Your task to perform on an android device: check out phone information Image 0: 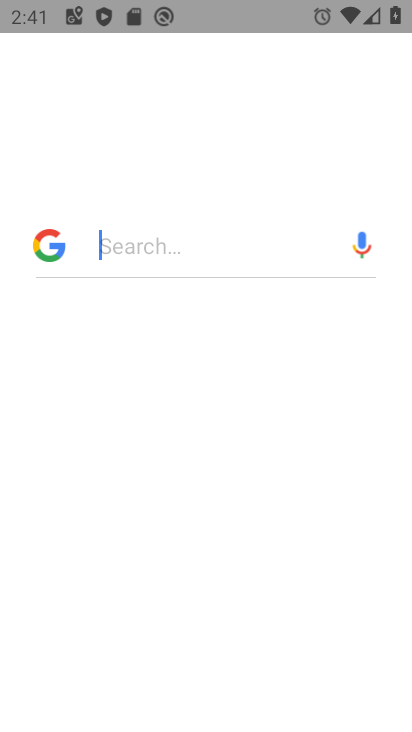
Step 0: drag from (334, 655) to (323, 8)
Your task to perform on an android device: check out phone information Image 1: 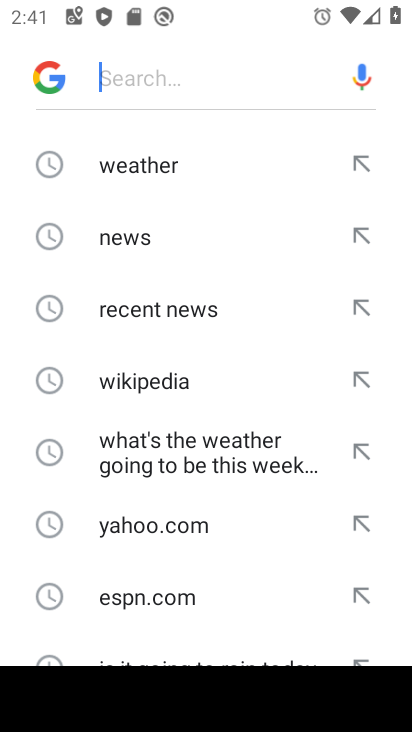
Step 1: press home button
Your task to perform on an android device: check out phone information Image 2: 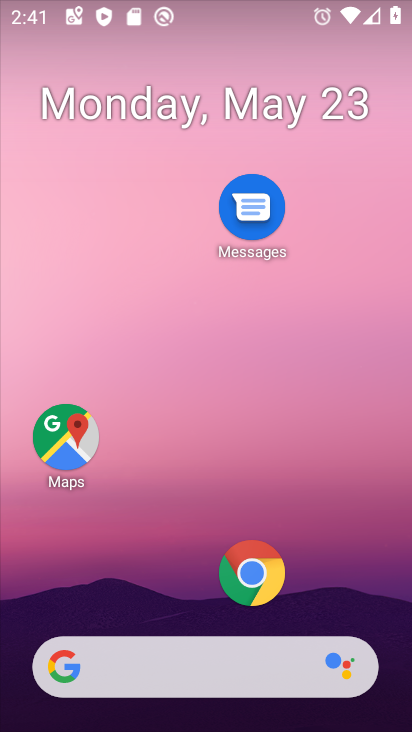
Step 2: drag from (245, 641) to (268, 193)
Your task to perform on an android device: check out phone information Image 3: 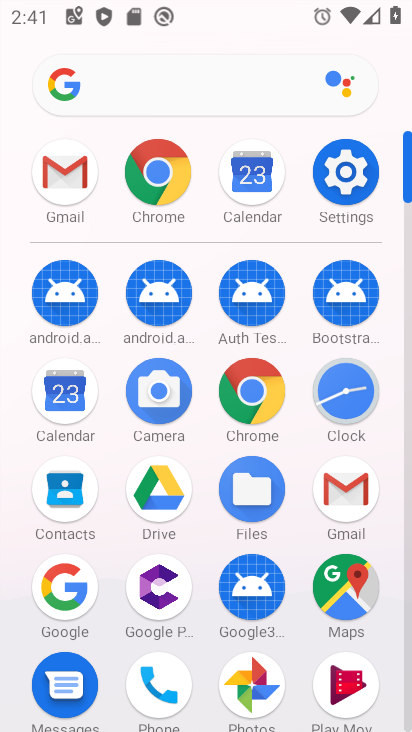
Step 3: click (347, 176)
Your task to perform on an android device: check out phone information Image 4: 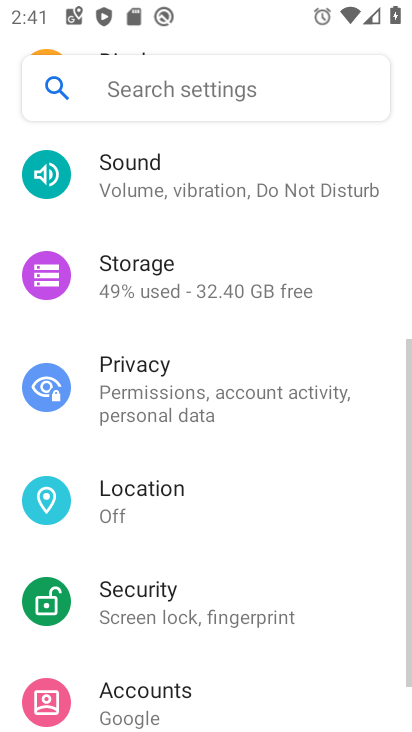
Step 4: drag from (290, 670) to (324, 51)
Your task to perform on an android device: check out phone information Image 5: 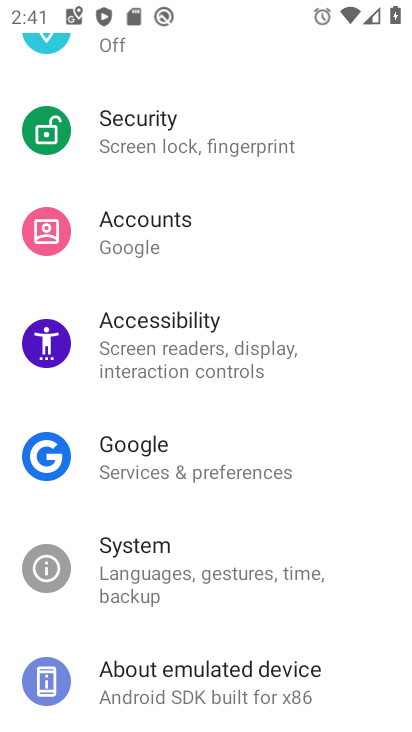
Step 5: click (244, 702)
Your task to perform on an android device: check out phone information Image 6: 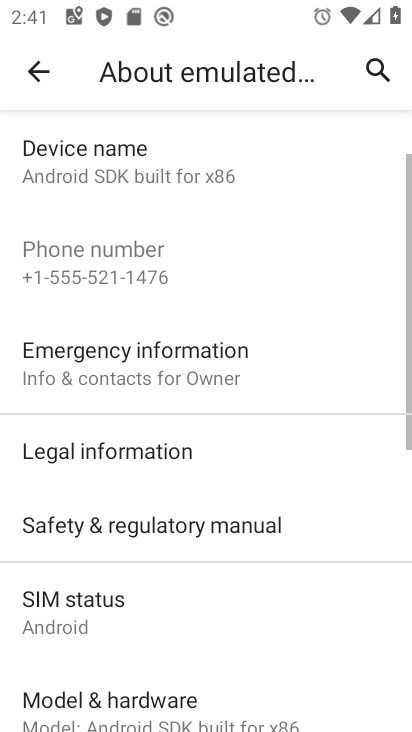
Step 6: task complete